Your task to perform on an android device: Open Google Chrome and open the bookmarks view Image 0: 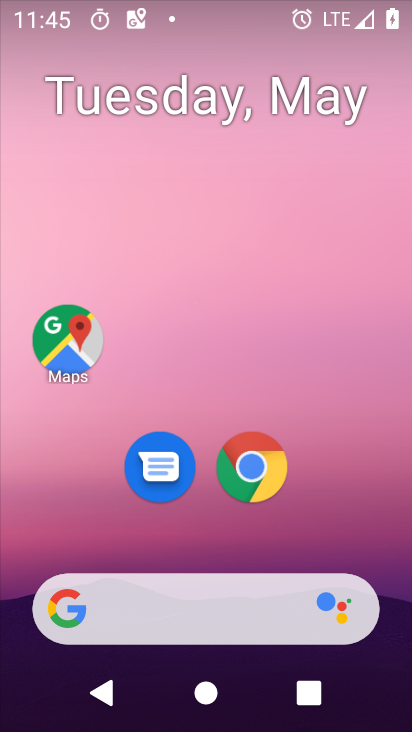
Step 0: drag from (346, 522) to (242, 11)
Your task to perform on an android device: Open Google Chrome and open the bookmarks view Image 1: 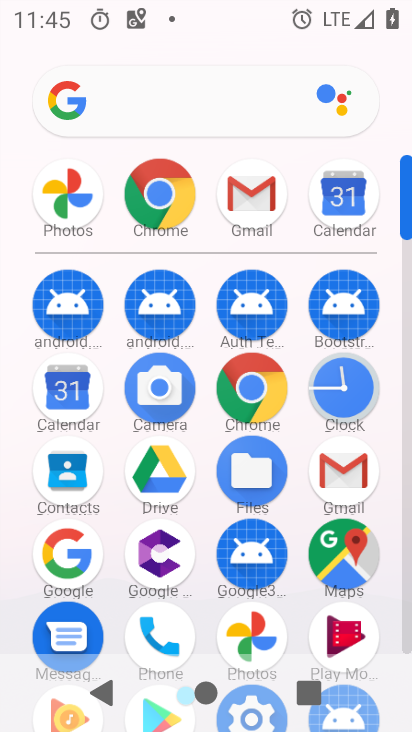
Step 1: drag from (14, 553) to (14, 222)
Your task to perform on an android device: Open Google Chrome and open the bookmarks view Image 2: 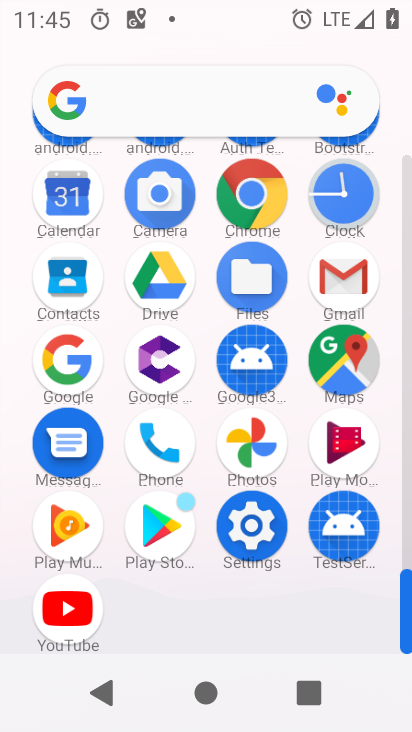
Step 2: click (255, 187)
Your task to perform on an android device: Open Google Chrome and open the bookmarks view Image 3: 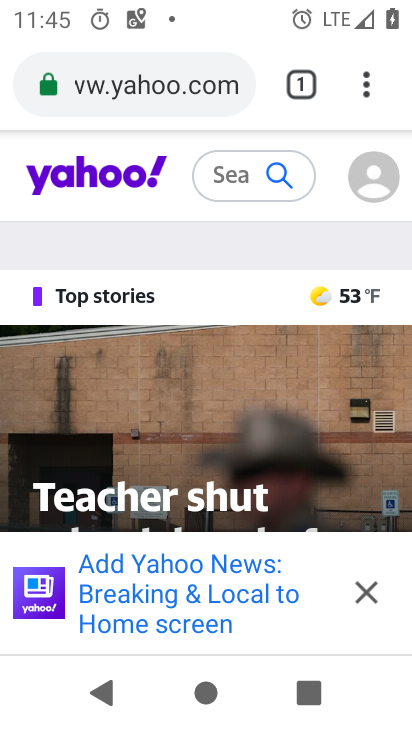
Step 3: task complete